Your task to perform on an android device: Go to Yahoo.com Image 0: 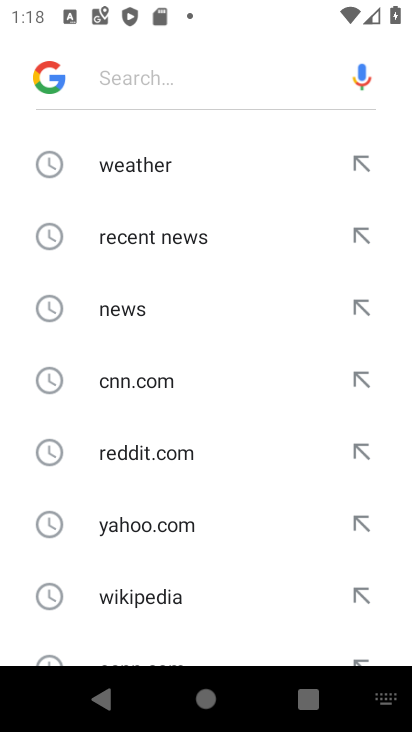
Step 0: press home button
Your task to perform on an android device: Go to Yahoo.com Image 1: 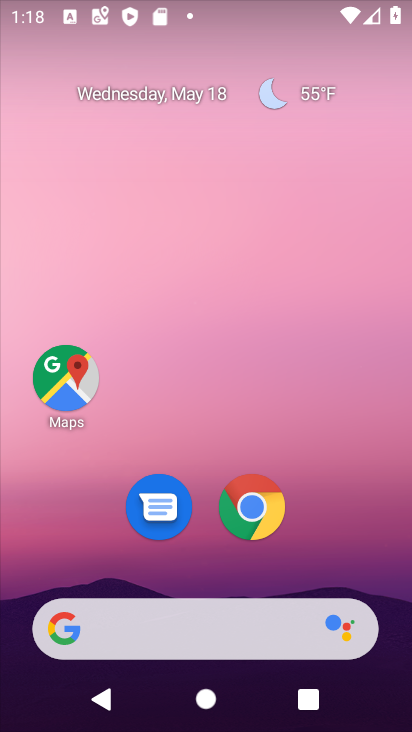
Step 1: click (259, 511)
Your task to perform on an android device: Go to Yahoo.com Image 2: 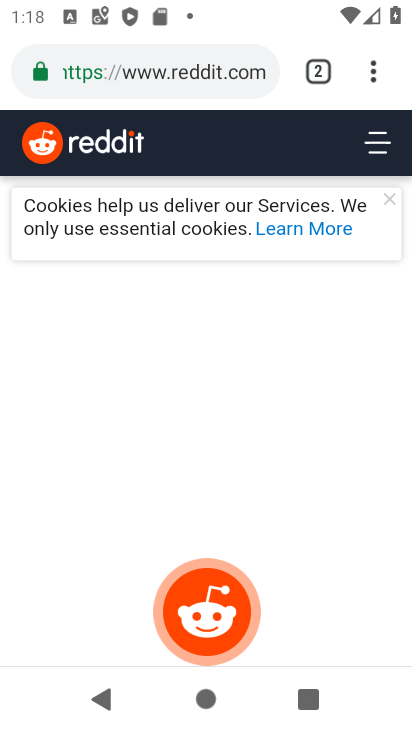
Step 2: click (168, 71)
Your task to perform on an android device: Go to Yahoo.com Image 3: 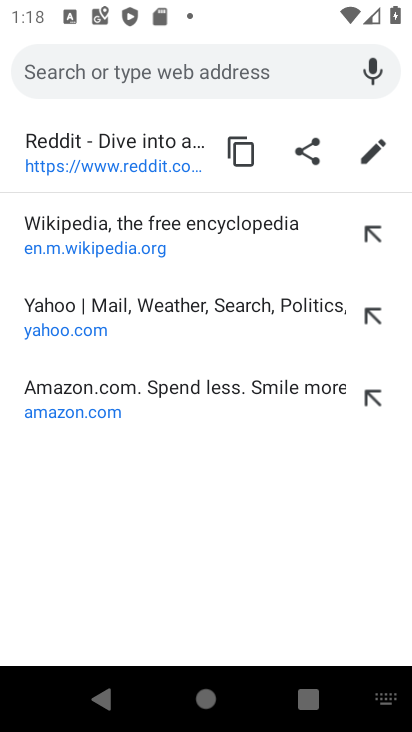
Step 3: type "yahoo.com"
Your task to perform on an android device: Go to Yahoo.com Image 4: 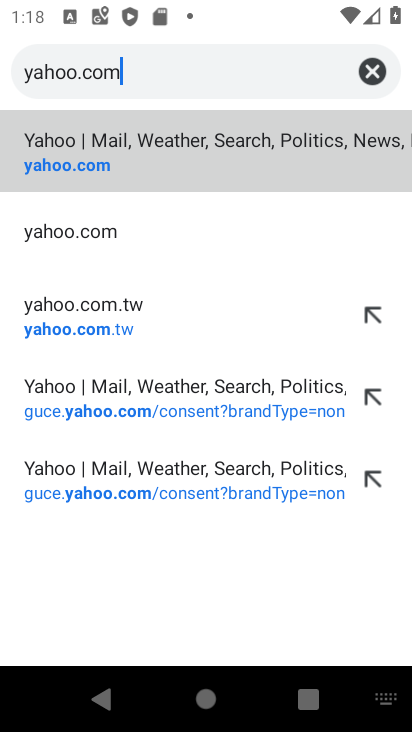
Step 4: click (109, 158)
Your task to perform on an android device: Go to Yahoo.com Image 5: 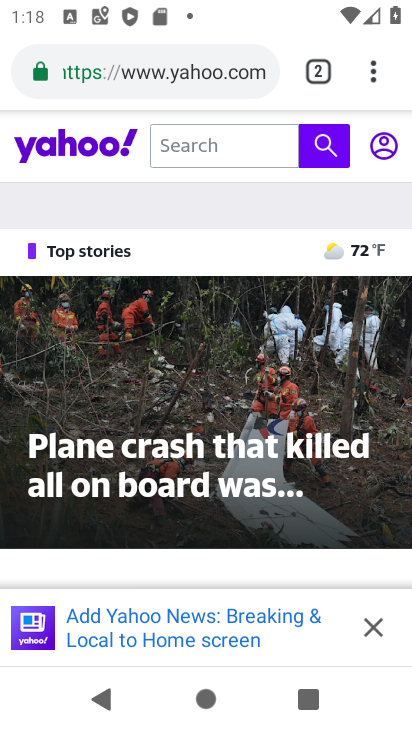
Step 5: task complete